Your task to perform on an android device: Go to settings Image 0: 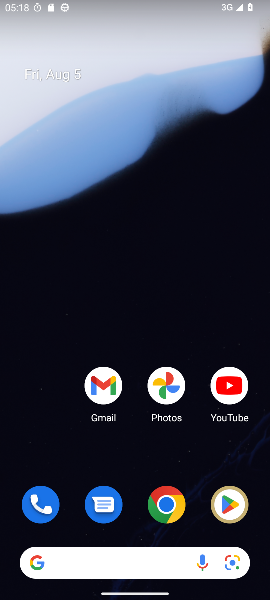
Step 0: drag from (64, 507) to (194, 261)
Your task to perform on an android device: Go to settings Image 1: 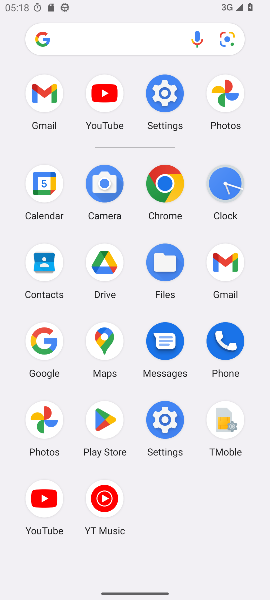
Step 1: click (157, 431)
Your task to perform on an android device: Go to settings Image 2: 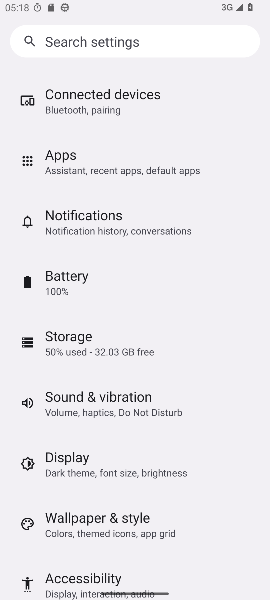
Step 2: task complete